Your task to perform on an android device: Show me popular videos on Youtube Image 0: 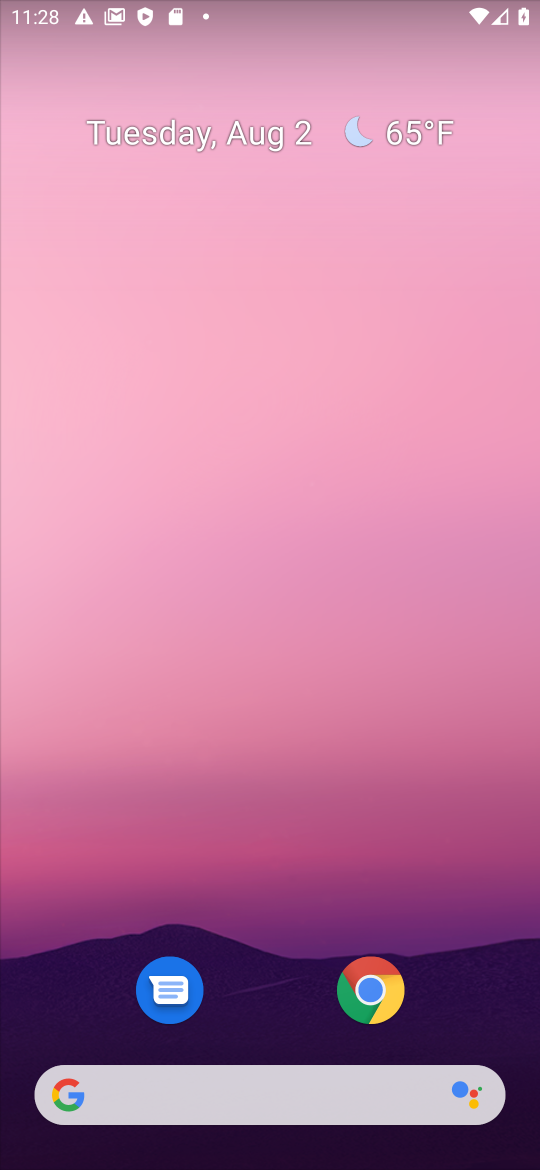
Step 0: drag from (259, 894) to (299, 310)
Your task to perform on an android device: Show me popular videos on Youtube Image 1: 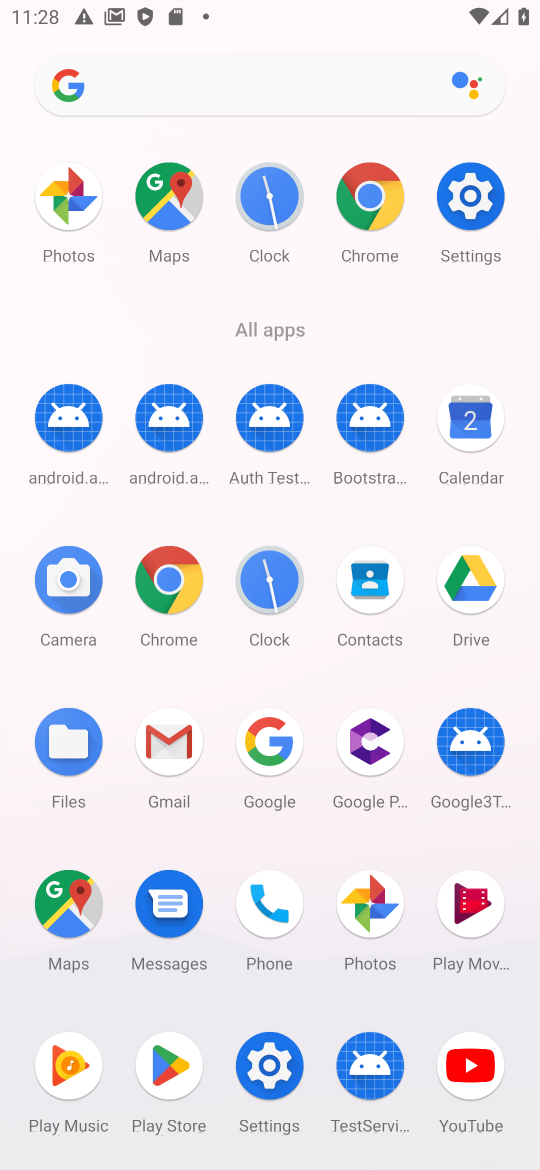
Step 1: click (460, 1074)
Your task to perform on an android device: Show me popular videos on Youtube Image 2: 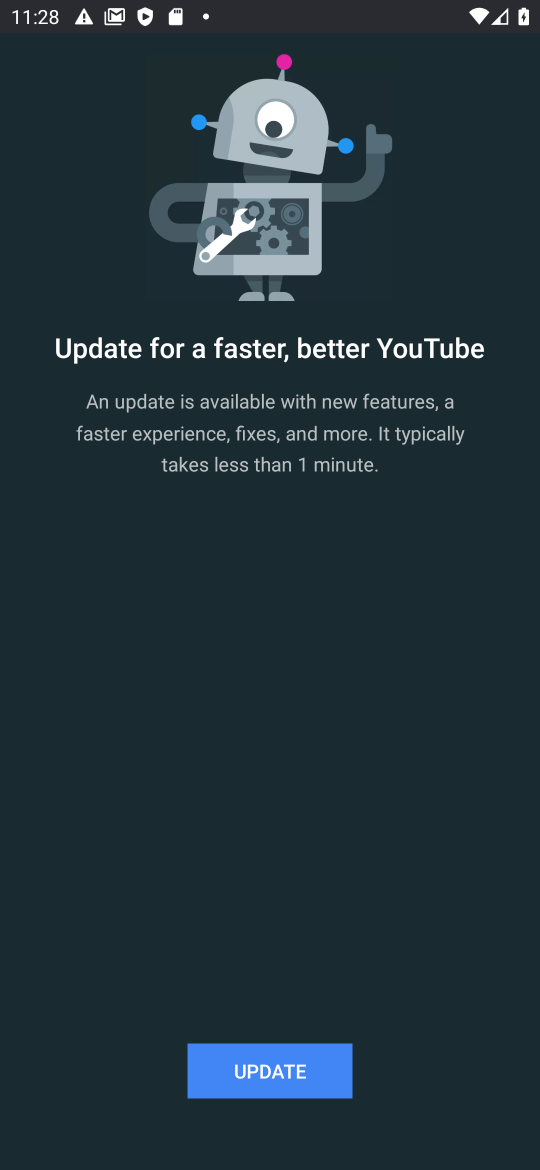
Step 2: click (324, 1080)
Your task to perform on an android device: Show me popular videos on Youtube Image 3: 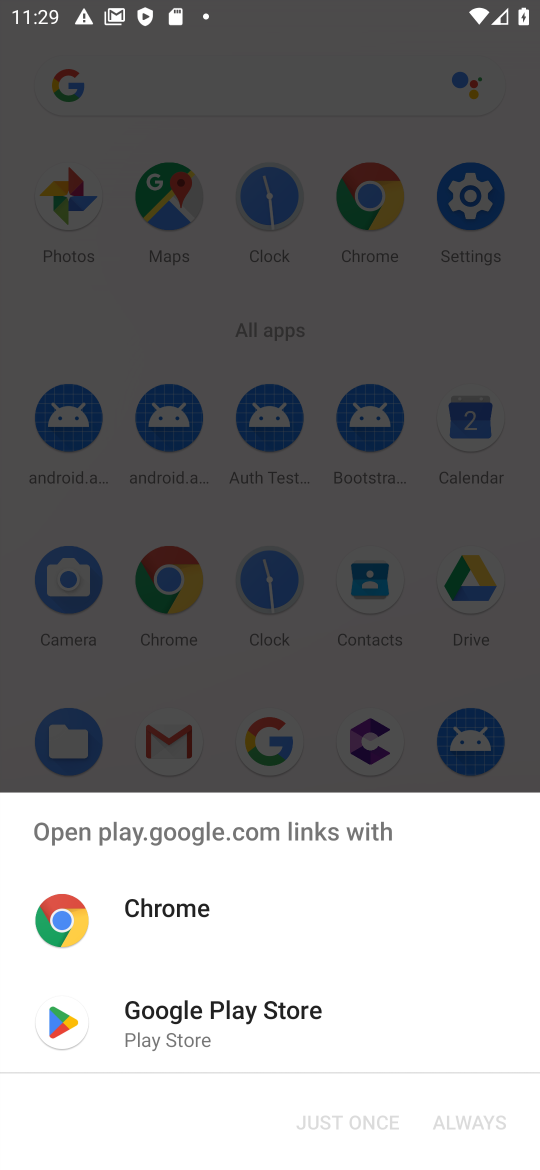
Step 3: click (167, 1020)
Your task to perform on an android device: Show me popular videos on Youtube Image 4: 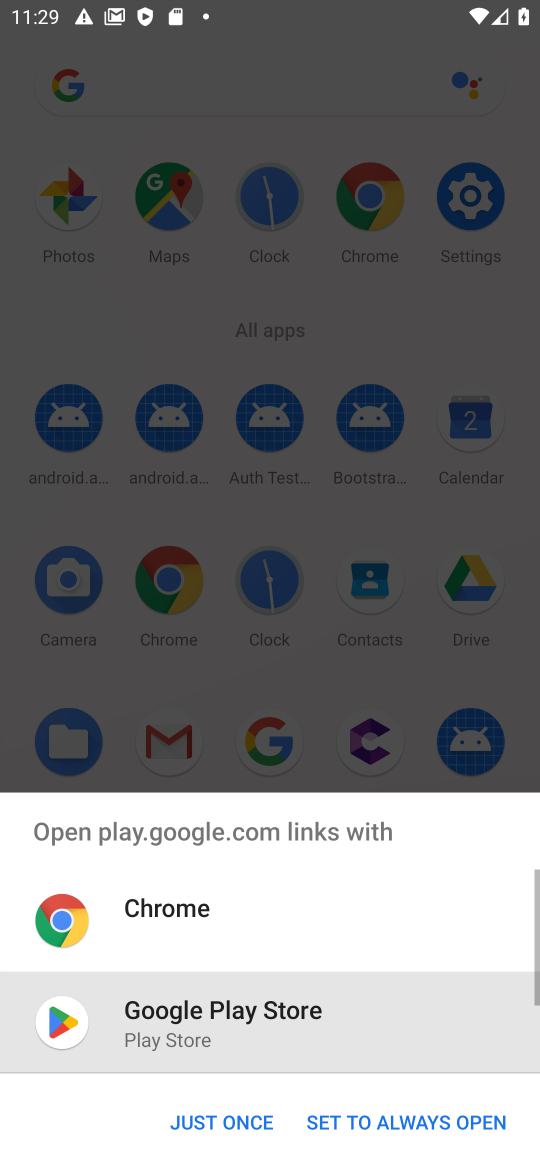
Step 4: click (200, 1127)
Your task to perform on an android device: Show me popular videos on Youtube Image 5: 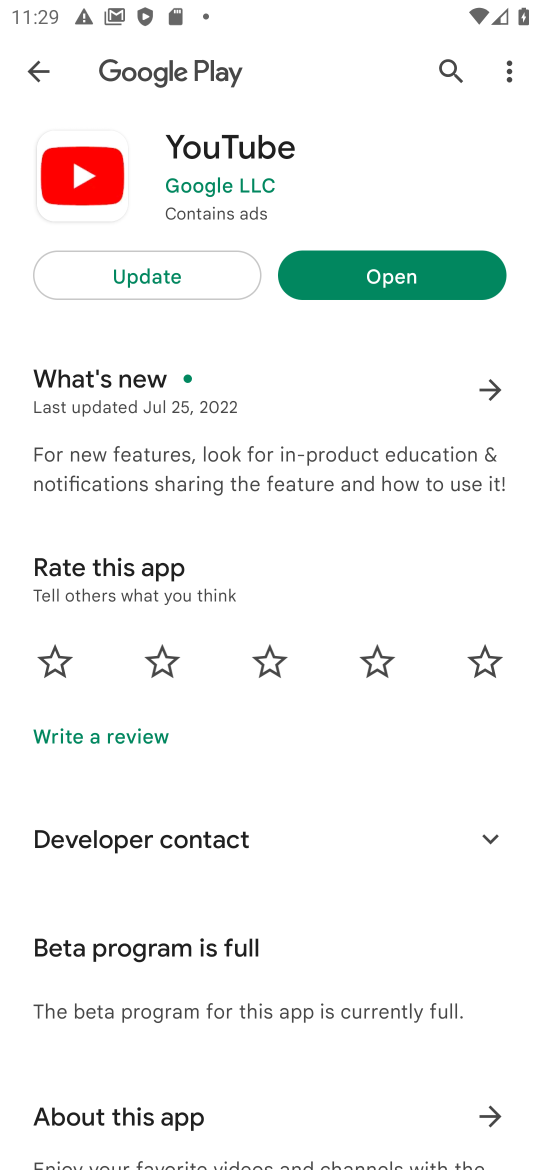
Step 5: click (157, 250)
Your task to perform on an android device: Show me popular videos on Youtube Image 6: 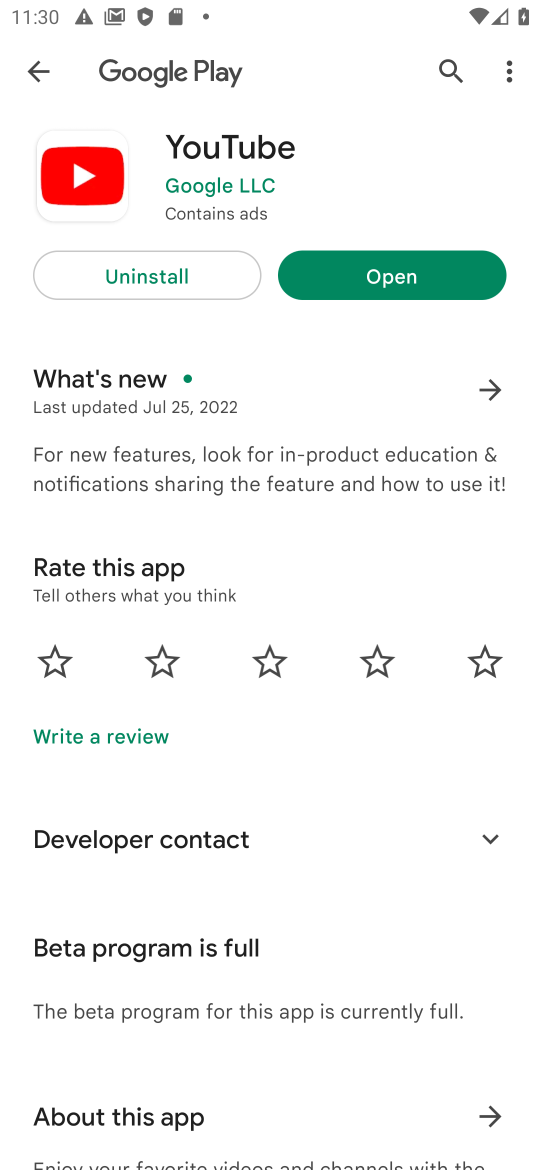
Step 6: click (361, 271)
Your task to perform on an android device: Show me popular videos on Youtube Image 7: 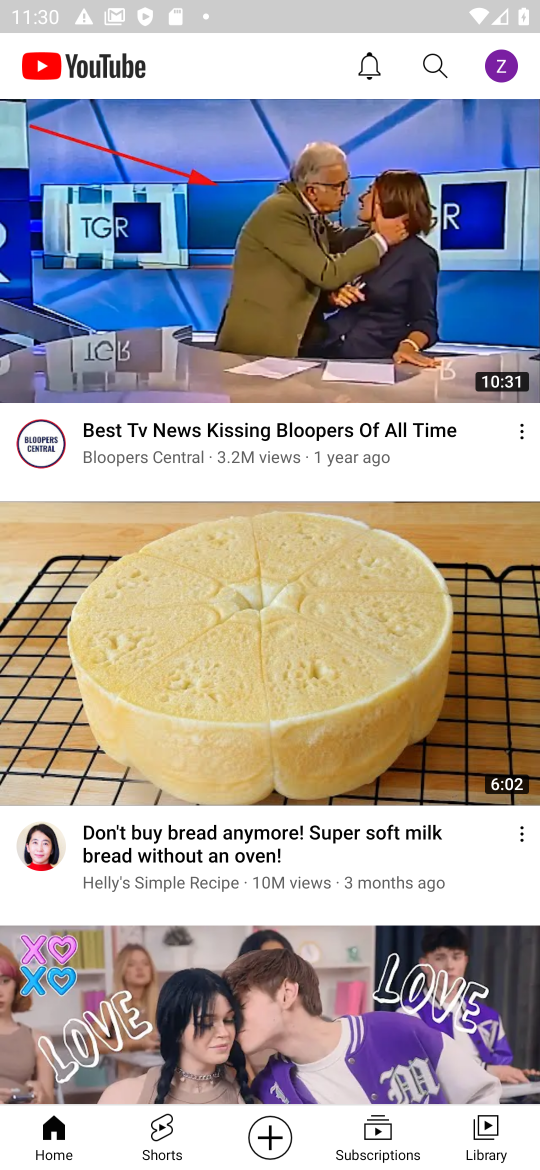
Step 7: drag from (127, 338) to (120, 612)
Your task to perform on an android device: Show me popular videos on Youtube Image 8: 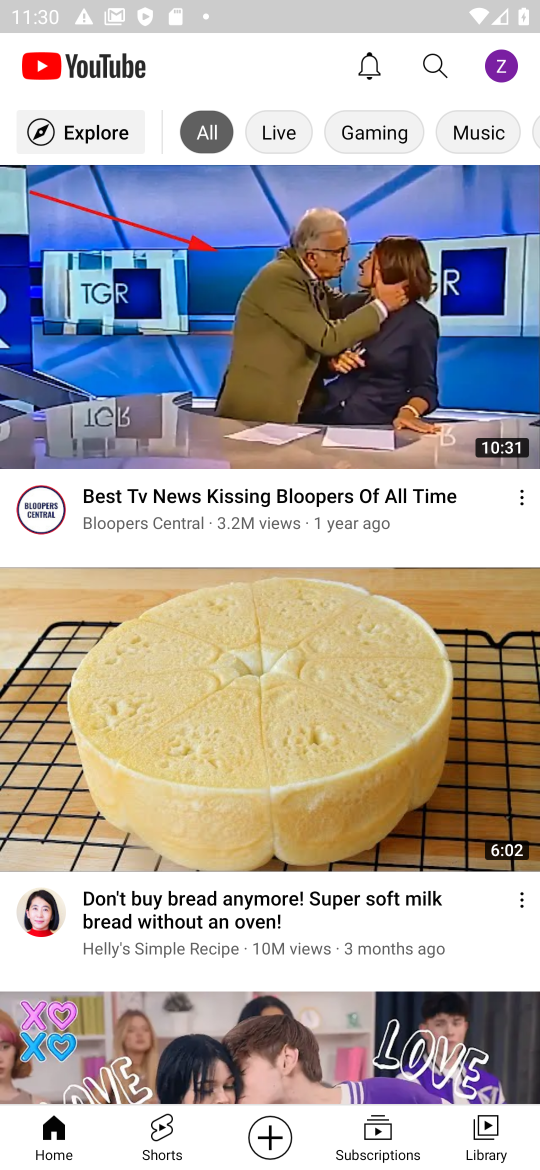
Step 8: click (43, 129)
Your task to perform on an android device: Show me popular videos on Youtube Image 9: 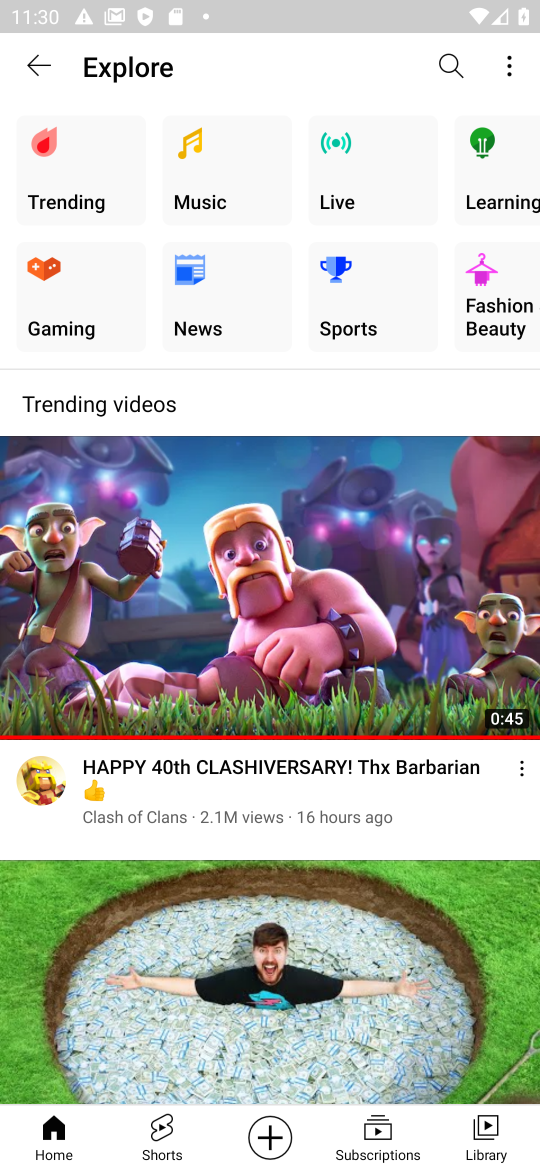
Step 9: click (64, 187)
Your task to perform on an android device: Show me popular videos on Youtube Image 10: 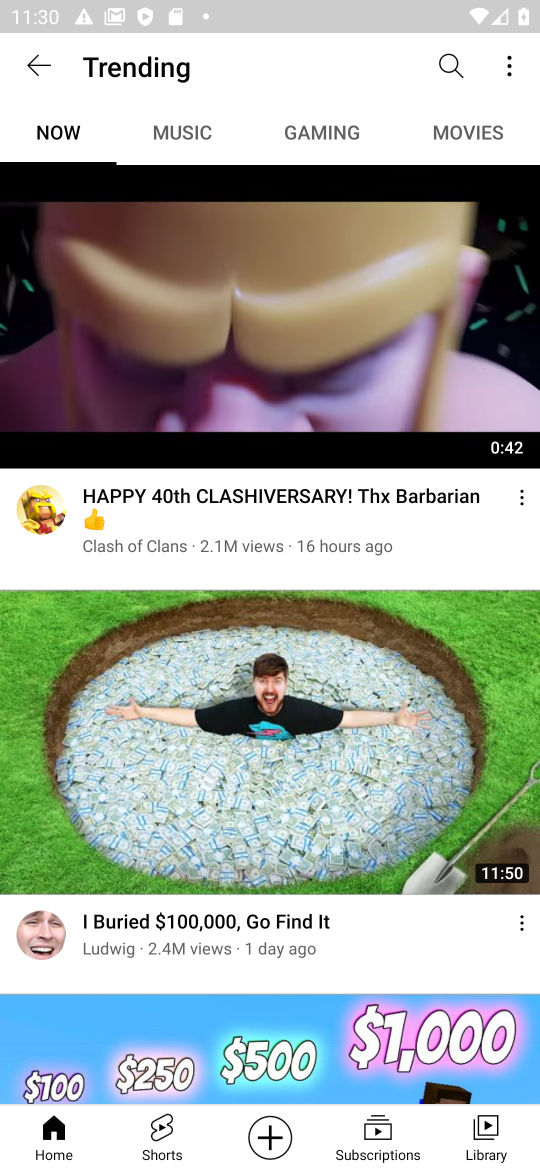
Step 10: task complete